Your task to perform on an android device: Open privacy settings Image 0: 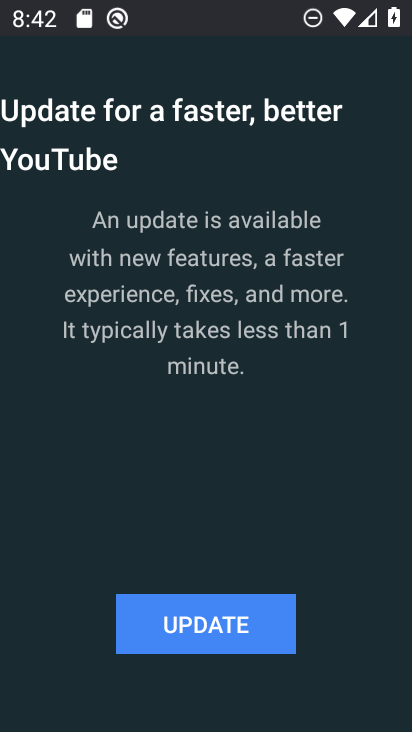
Step 0: press home button
Your task to perform on an android device: Open privacy settings Image 1: 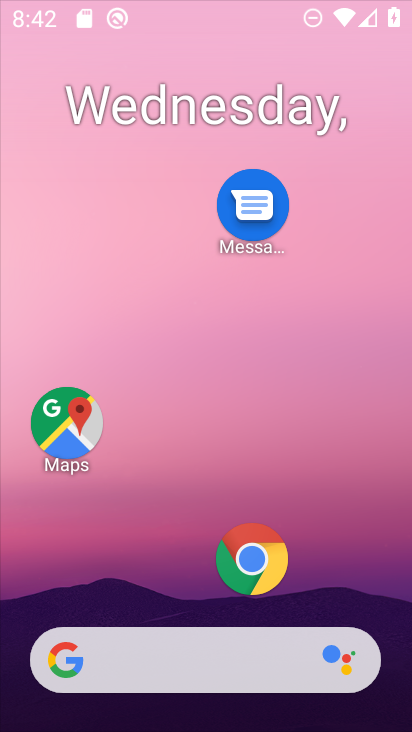
Step 1: drag from (238, 614) to (255, 153)
Your task to perform on an android device: Open privacy settings Image 2: 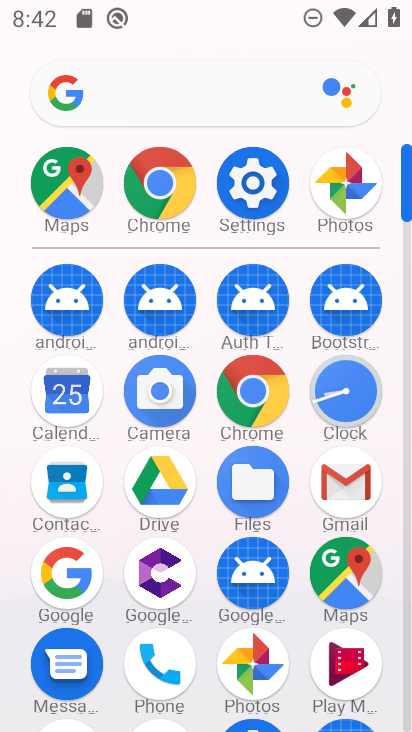
Step 2: click (259, 187)
Your task to perform on an android device: Open privacy settings Image 3: 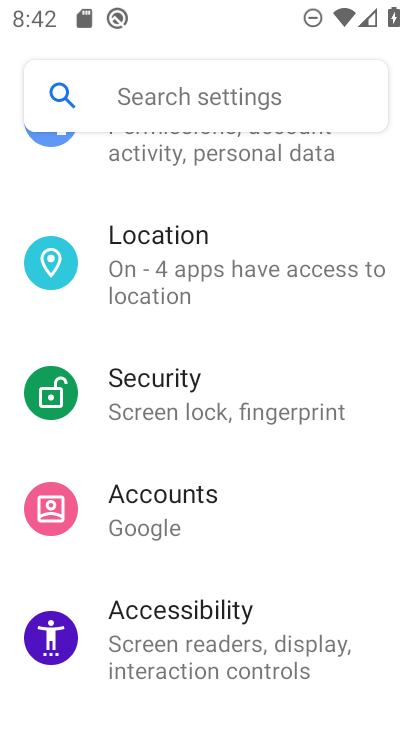
Step 3: drag from (255, 544) to (289, 239)
Your task to perform on an android device: Open privacy settings Image 4: 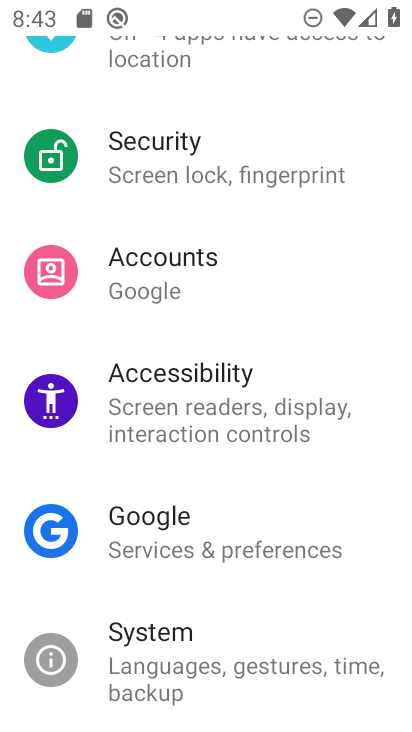
Step 4: drag from (251, 584) to (298, 184)
Your task to perform on an android device: Open privacy settings Image 5: 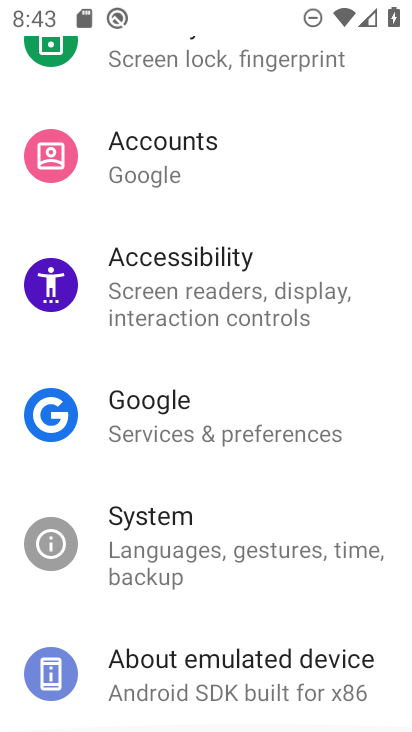
Step 5: drag from (285, 383) to (302, 725)
Your task to perform on an android device: Open privacy settings Image 6: 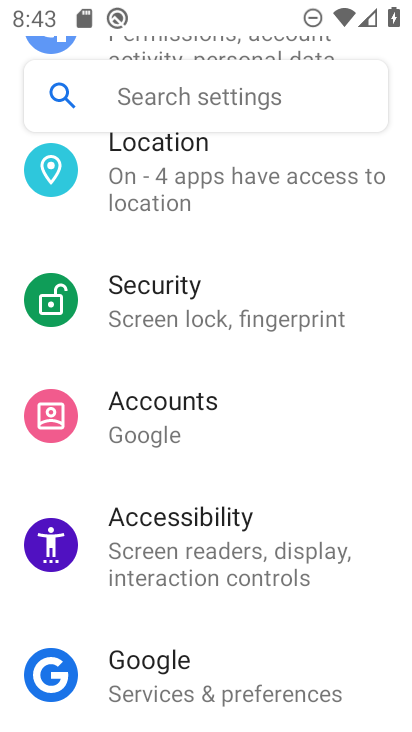
Step 6: drag from (252, 311) to (252, 702)
Your task to perform on an android device: Open privacy settings Image 7: 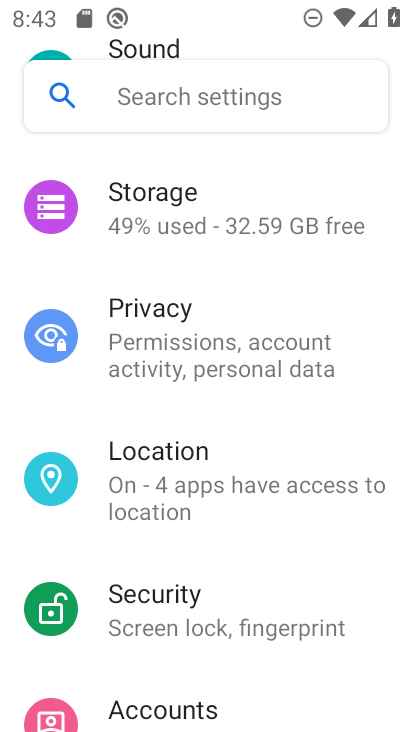
Step 7: click (215, 369)
Your task to perform on an android device: Open privacy settings Image 8: 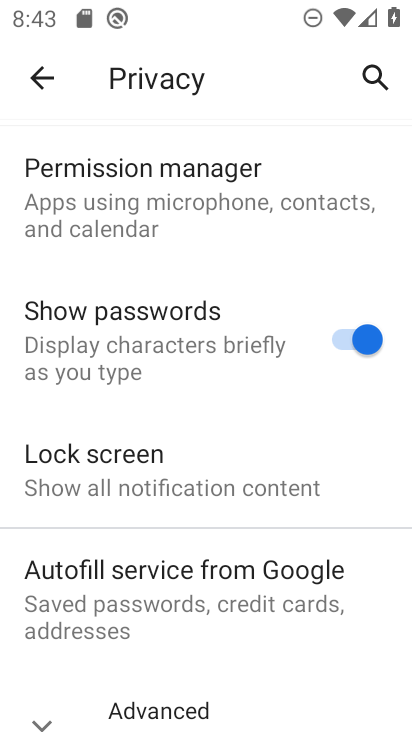
Step 8: task complete